Your task to perform on an android device: see sites visited before in the chrome app Image 0: 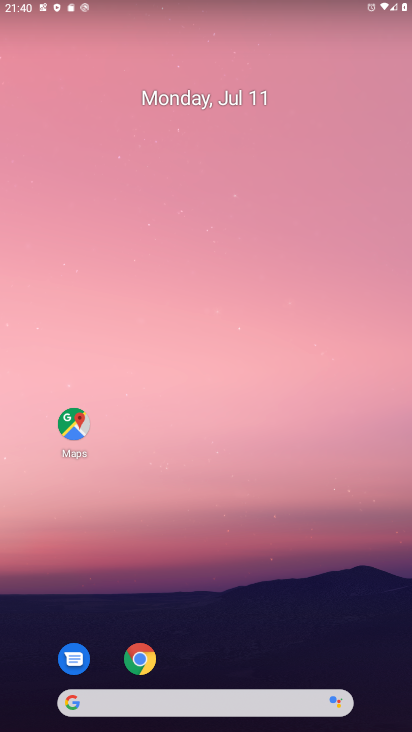
Step 0: drag from (212, 475) to (277, 151)
Your task to perform on an android device: see sites visited before in the chrome app Image 1: 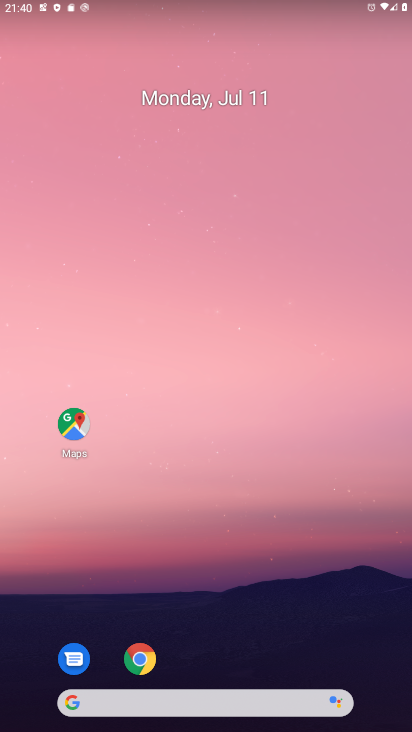
Step 1: drag from (177, 683) to (268, 0)
Your task to perform on an android device: see sites visited before in the chrome app Image 2: 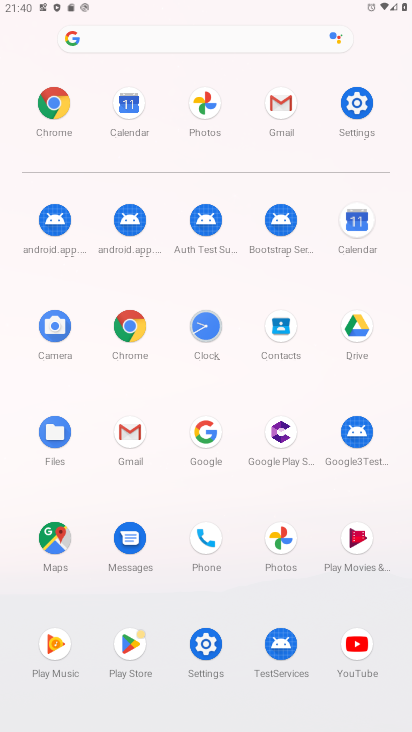
Step 2: click (128, 325)
Your task to perform on an android device: see sites visited before in the chrome app Image 3: 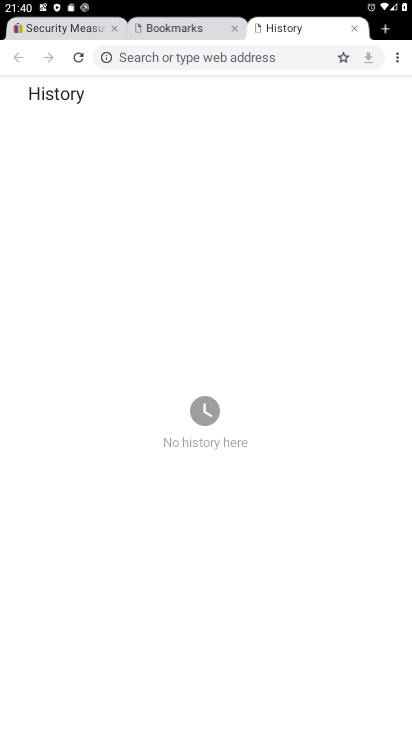
Step 3: drag from (207, 574) to (243, 230)
Your task to perform on an android device: see sites visited before in the chrome app Image 4: 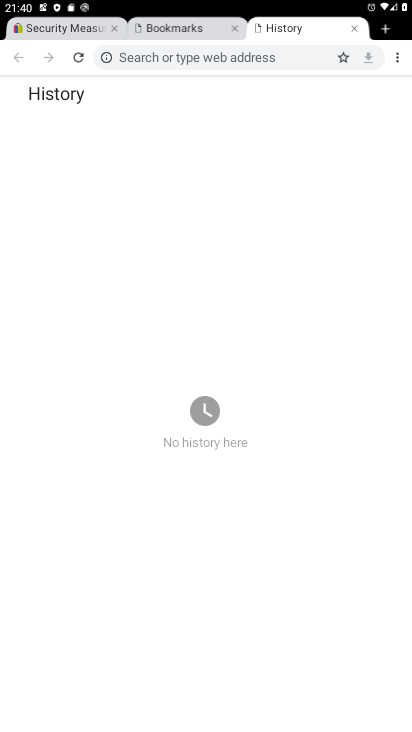
Step 4: click (392, 64)
Your task to perform on an android device: see sites visited before in the chrome app Image 5: 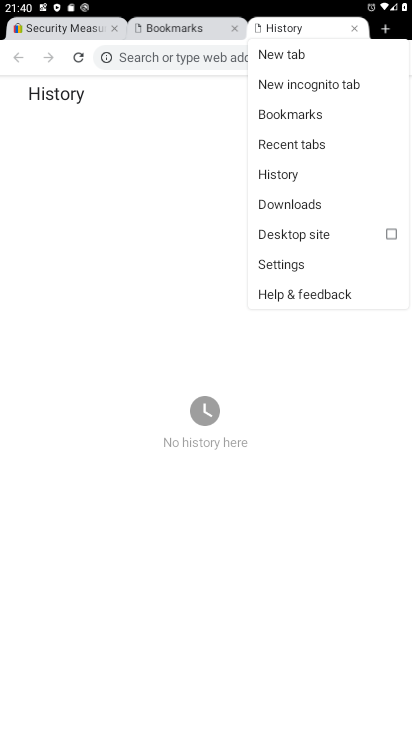
Step 5: click (296, 261)
Your task to perform on an android device: see sites visited before in the chrome app Image 6: 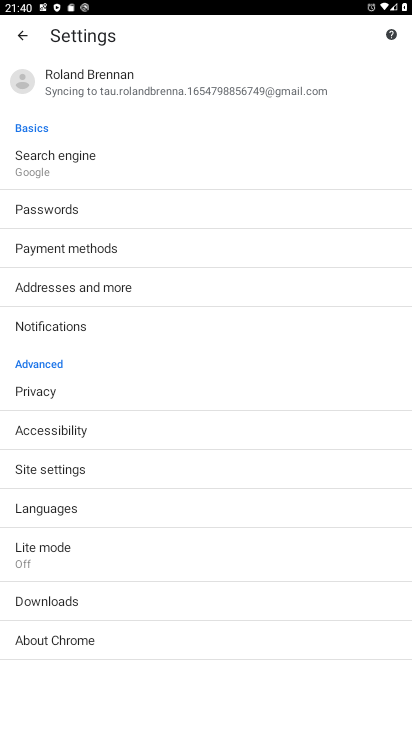
Step 6: drag from (193, 538) to (216, 266)
Your task to perform on an android device: see sites visited before in the chrome app Image 7: 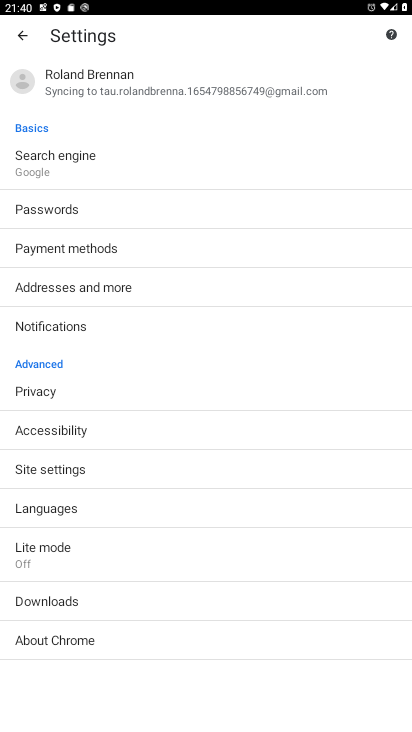
Step 7: drag from (176, 462) to (250, 191)
Your task to perform on an android device: see sites visited before in the chrome app Image 8: 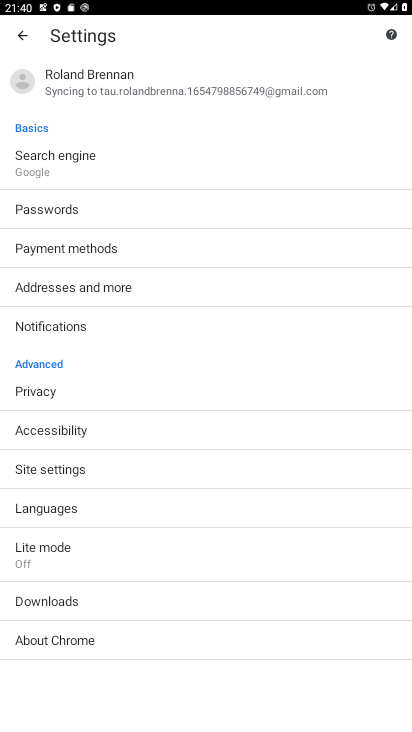
Step 8: drag from (183, 579) to (180, 320)
Your task to perform on an android device: see sites visited before in the chrome app Image 9: 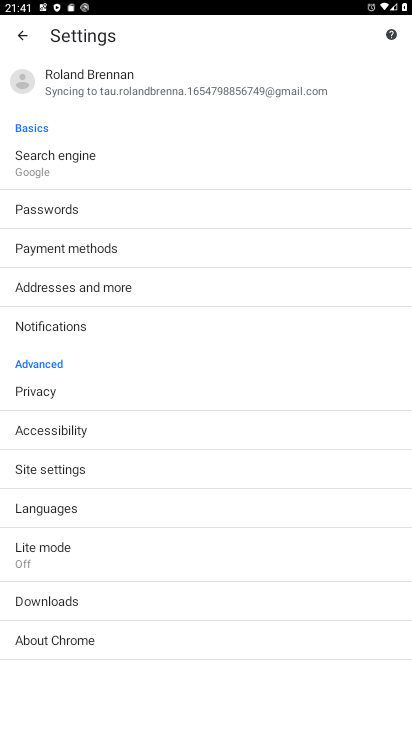
Step 9: drag from (235, 459) to (232, 127)
Your task to perform on an android device: see sites visited before in the chrome app Image 10: 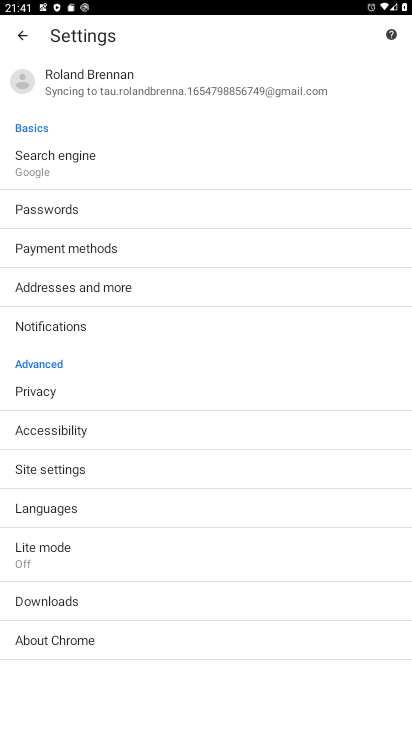
Step 10: click (30, 19)
Your task to perform on an android device: see sites visited before in the chrome app Image 11: 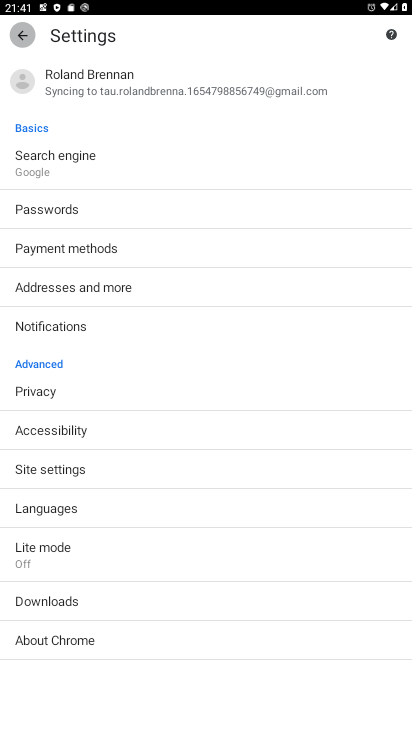
Step 11: click (17, 34)
Your task to perform on an android device: see sites visited before in the chrome app Image 12: 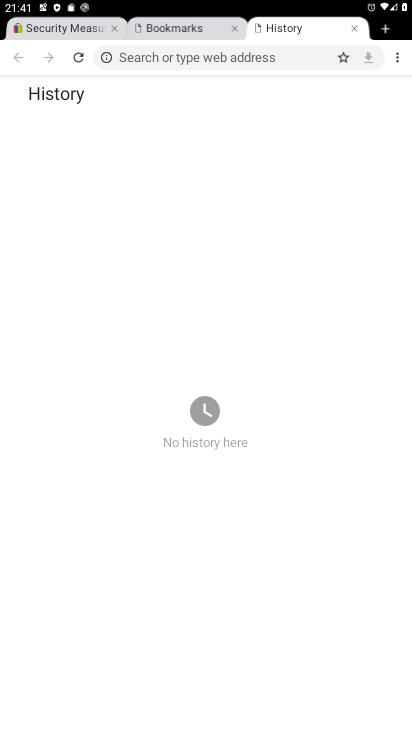
Step 12: click (397, 51)
Your task to perform on an android device: see sites visited before in the chrome app Image 13: 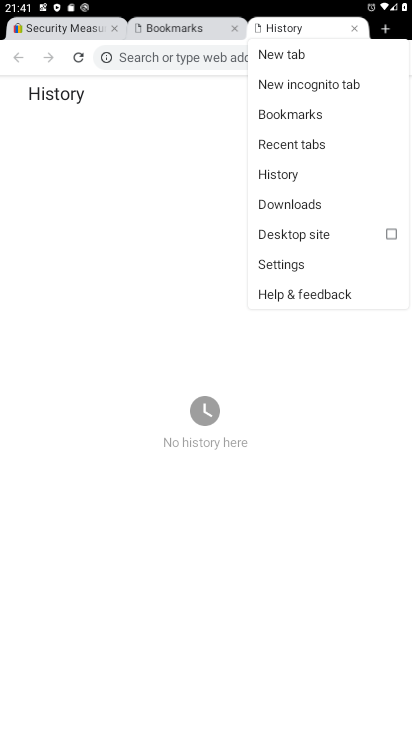
Step 13: click (288, 171)
Your task to perform on an android device: see sites visited before in the chrome app Image 14: 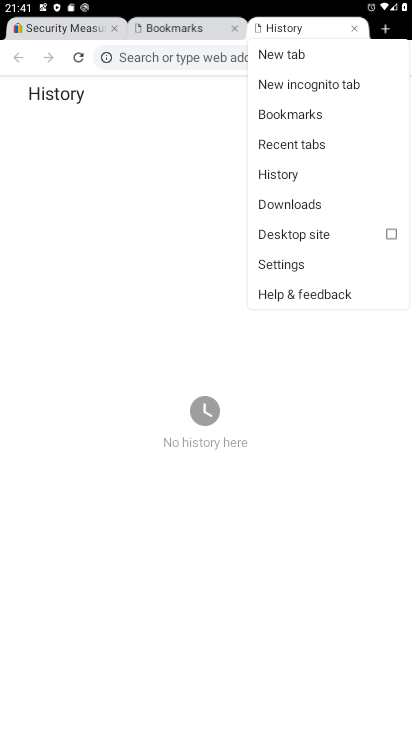
Step 14: click (299, 177)
Your task to perform on an android device: see sites visited before in the chrome app Image 15: 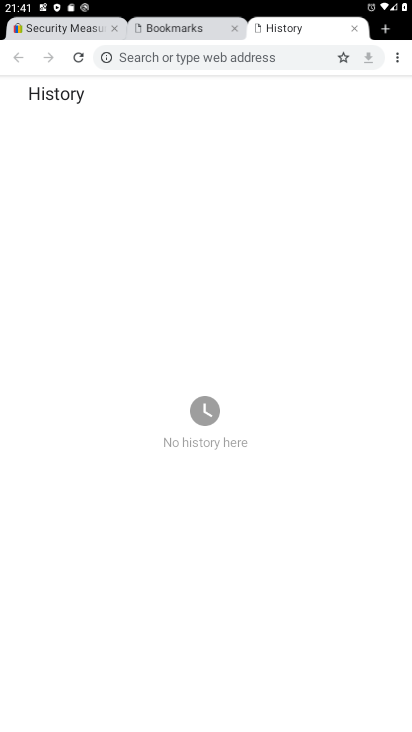
Step 15: task complete